Your task to perform on an android device: open sync settings in chrome Image 0: 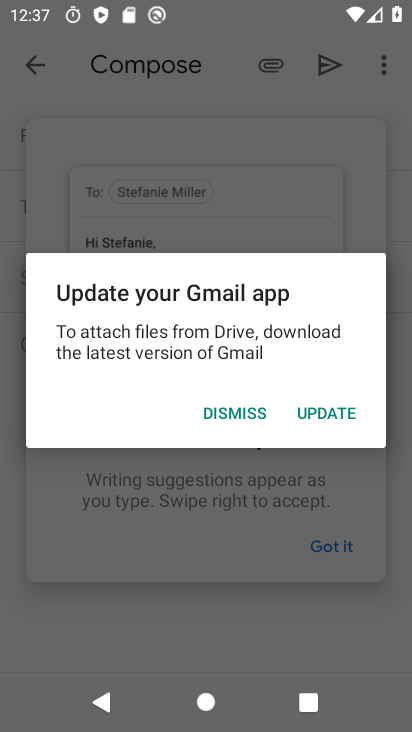
Step 0: press back button
Your task to perform on an android device: open sync settings in chrome Image 1: 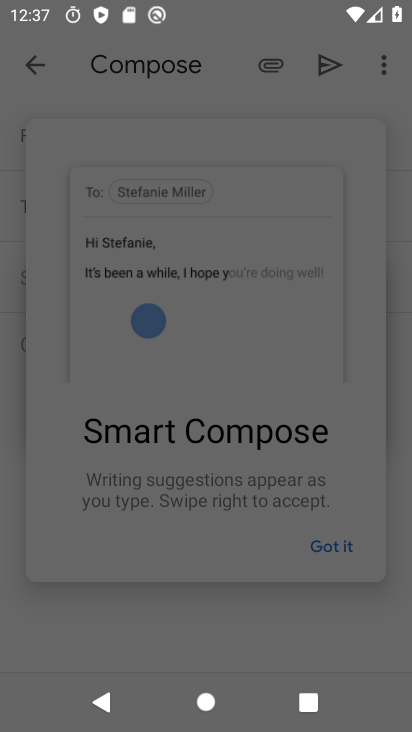
Step 1: press back button
Your task to perform on an android device: open sync settings in chrome Image 2: 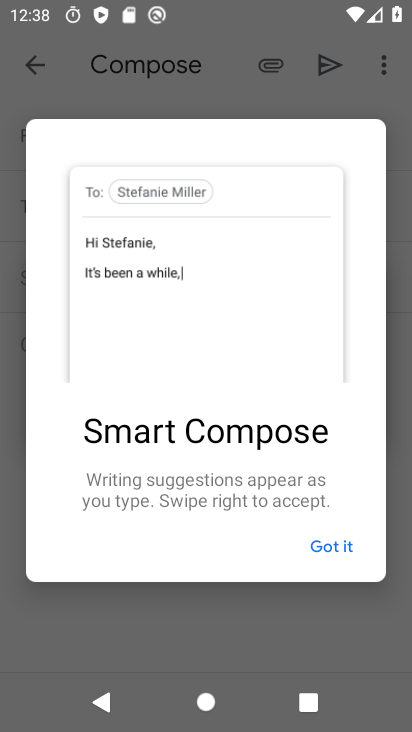
Step 2: click (333, 539)
Your task to perform on an android device: open sync settings in chrome Image 3: 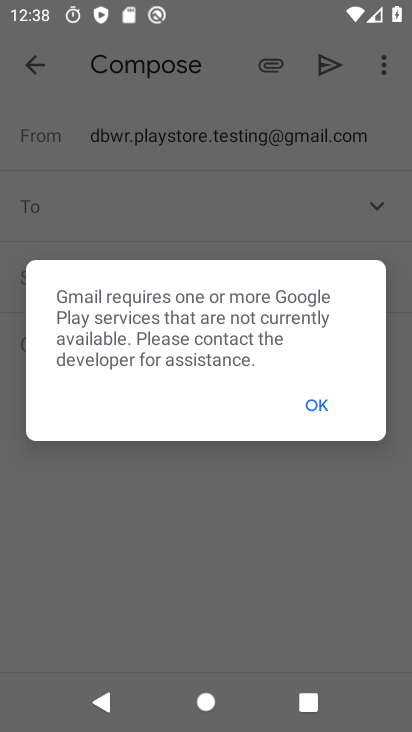
Step 3: click (300, 396)
Your task to perform on an android device: open sync settings in chrome Image 4: 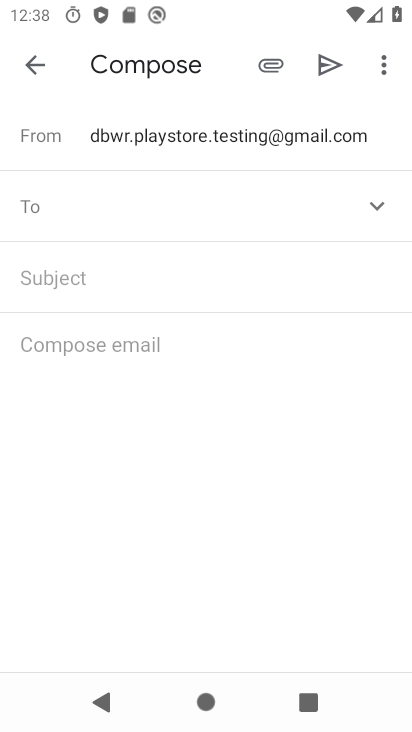
Step 4: press back button
Your task to perform on an android device: open sync settings in chrome Image 5: 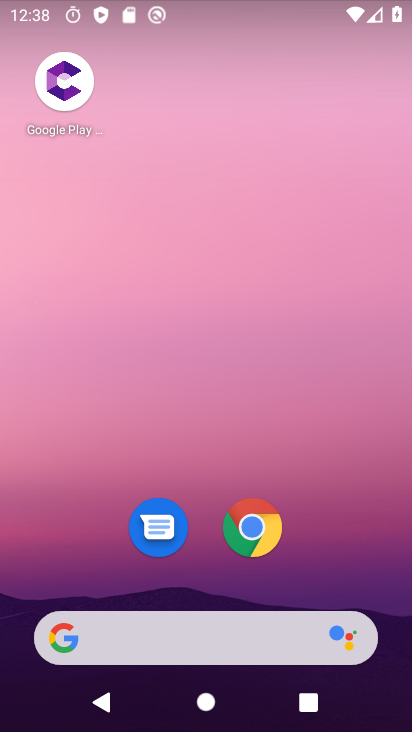
Step 5: click (244, 519)
Your task to perform on an android device: open sync settings in chrome Image 6: 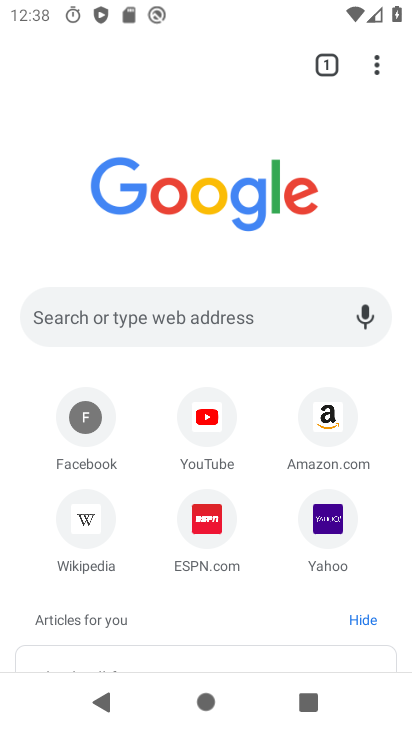
Step 6: drag from (374, 72) to (157, 534)
Your task to perform on an android device: open sync settings in chrome Image 7: 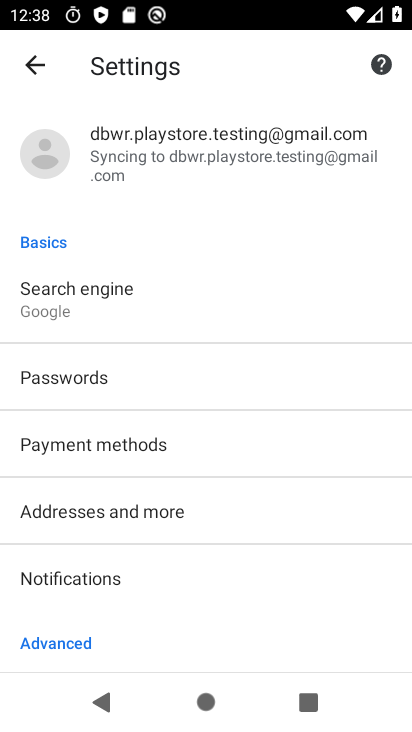
Step 7: click (174, 155)
Your task to perform on an android device: open sync settings in chrome Image 8: 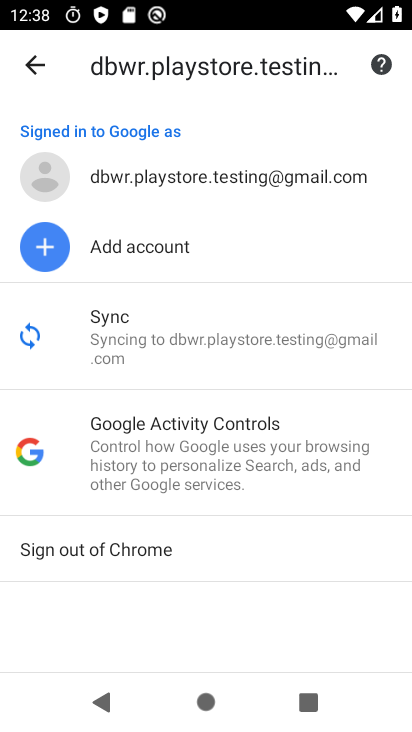
Step 8: task complete